Your task to perform on an android device: Go to battery settings Image 0: 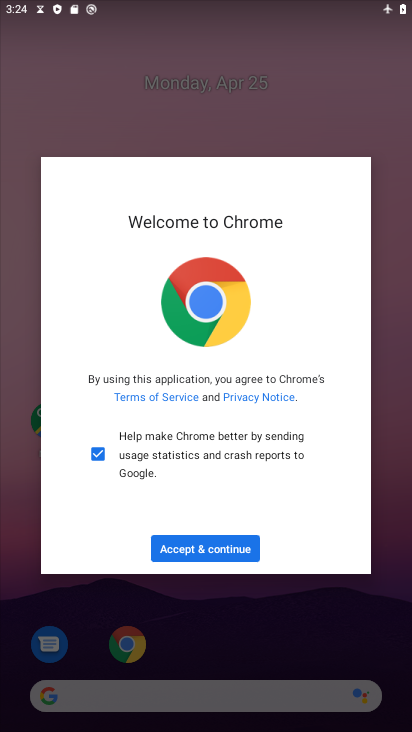
Step 0: press home button
Your task to perform on an android device: Go to battery settings Image 1: 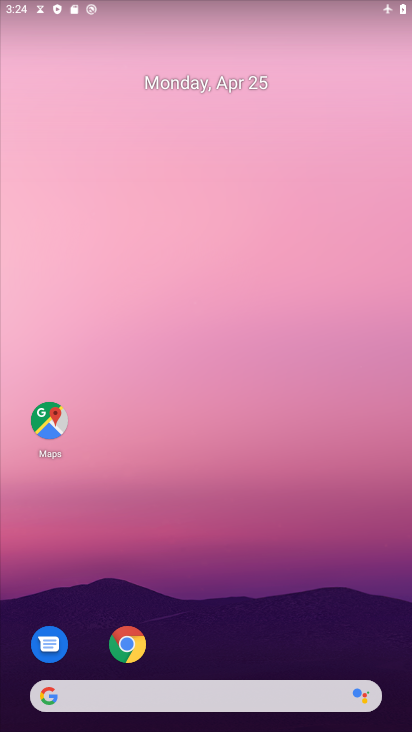
Step 1: drag from (225, 256) to (220, 133)
Your task to perform on an android device: Go to battery settings Image 2: 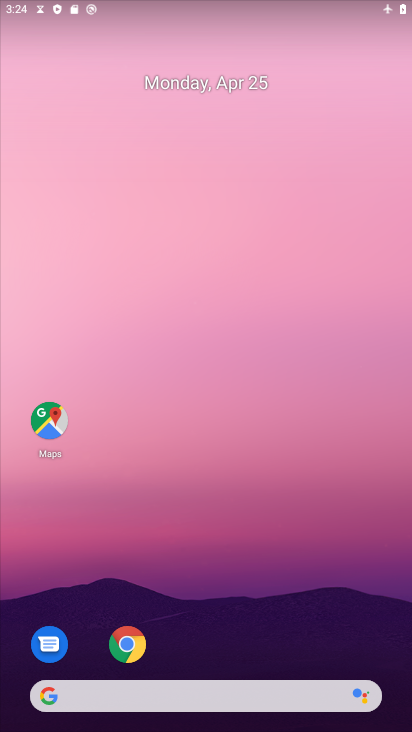
Step 2: click (256, 153)
Your task to perform on an android device: Go to battery settings Image 3: 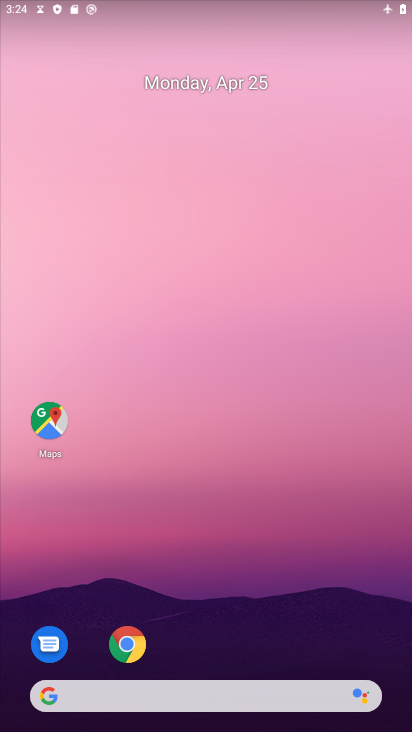
Step 3: drag from (219, 649) to (244, 129)
Your task to perform on an android device: Go to battery settings Image 4: 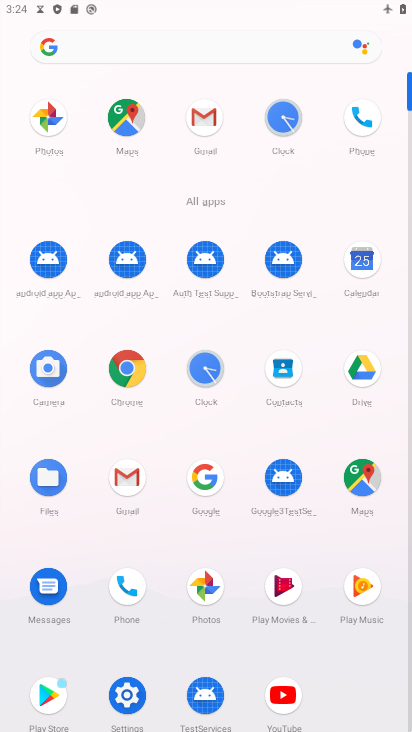
Step 4: drag from (240, 561) to (235, 203)
Your task to perform on an android device: Go to battery settings Image 5: 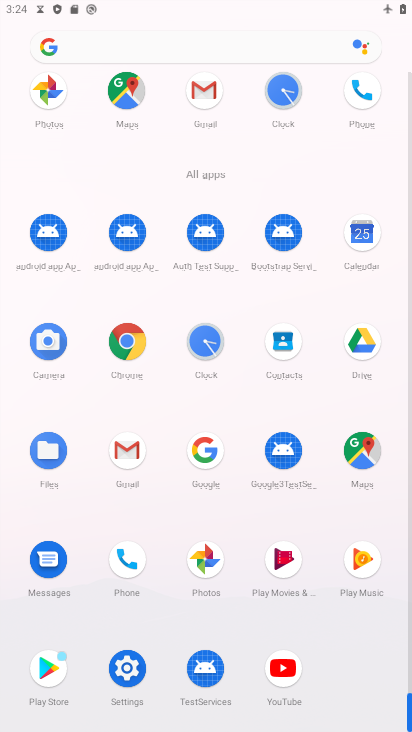
Step 5: click (122, 659)
Your task to perform on an android device: Go to battery settings Image 6: 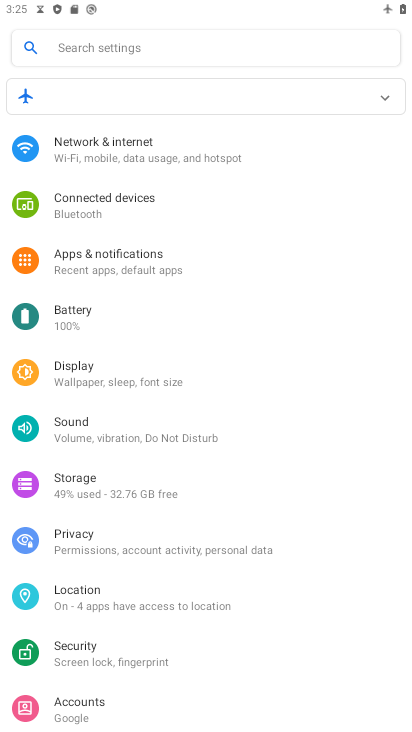
Step 6: click (100, 312)
Your task to perform on an android device: Go to battery settings Image 7: 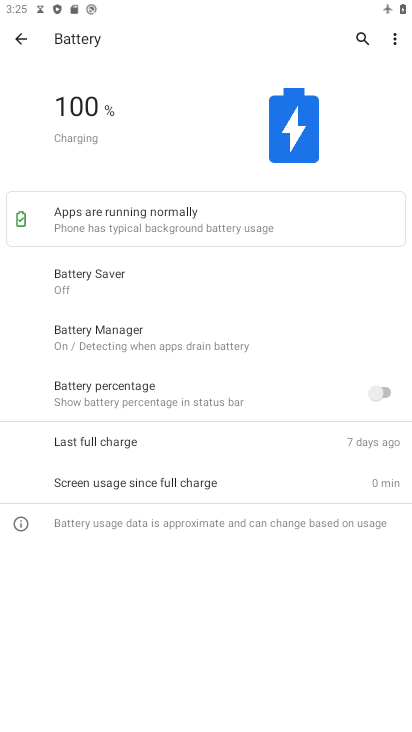
Step 7: task complete